Your task to perform on an android device: What's the weather today? Image 0: 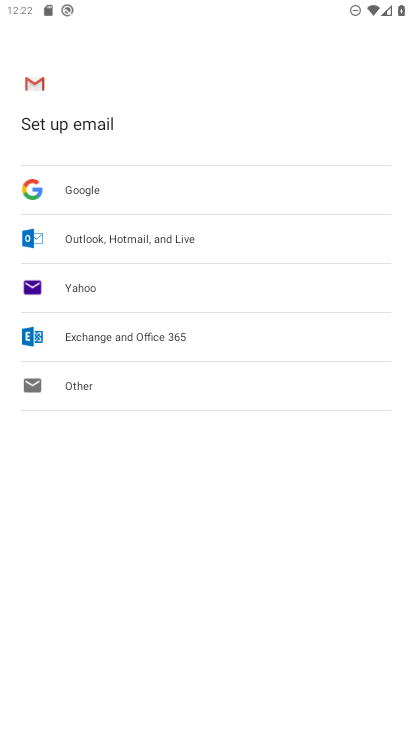
Step 0: press home button
Your task to perform on an android device: What's the weather today? Image 1: 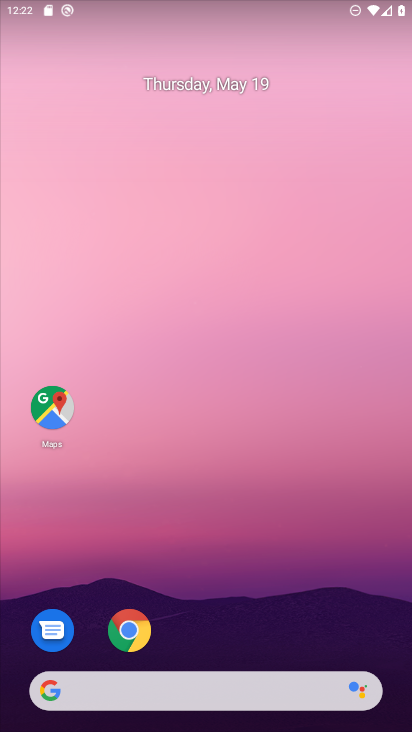
Step 1: click (117, 626)
Your task to perform on an android device: What's the weather today? Image 2: 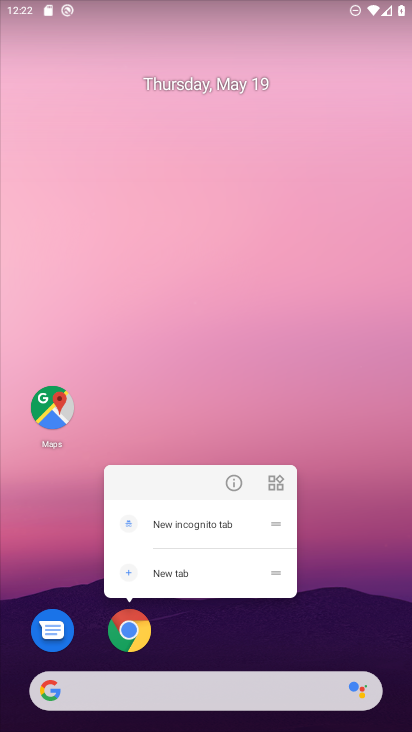
Step 2: click (129, 634)
Your task to perform on an android device: What's the weather today? Image 3: 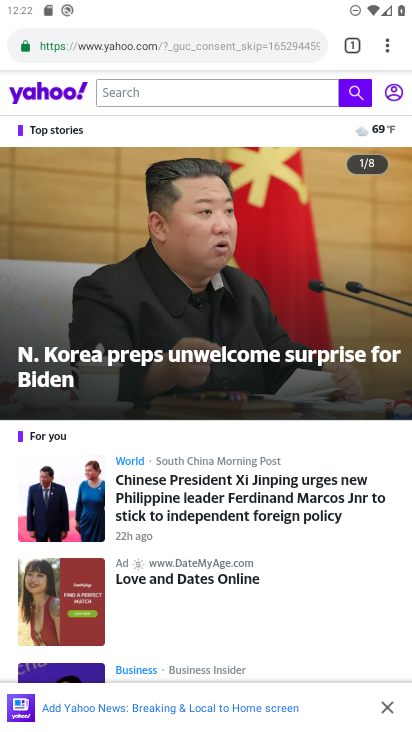
Step 3: click (81, 56)
Your task to perform on an android device: What's the weather today? Image 4: 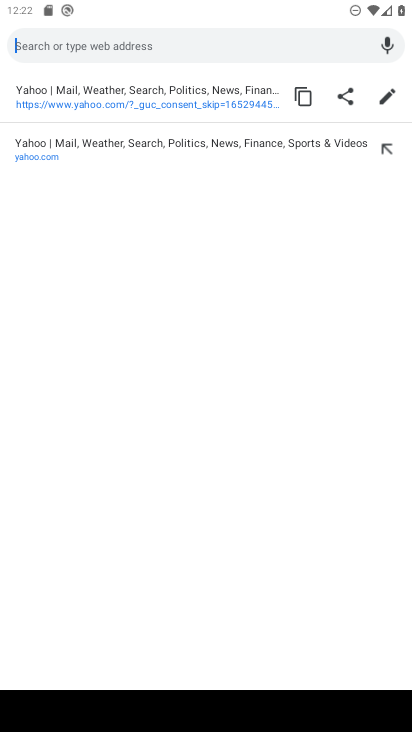
Step 4: type "What's the weather today?"
Your task to perform on an android device: What's the weather today? Image 5: 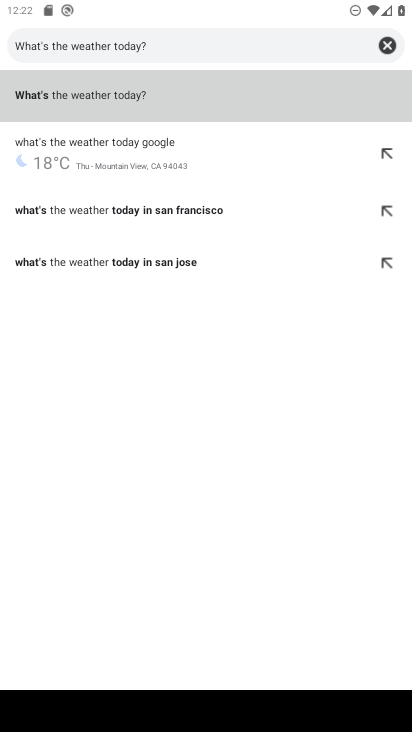
Step 5: click (215, 99)
Your task to perform on an android device: What's the weather today? Image 6: 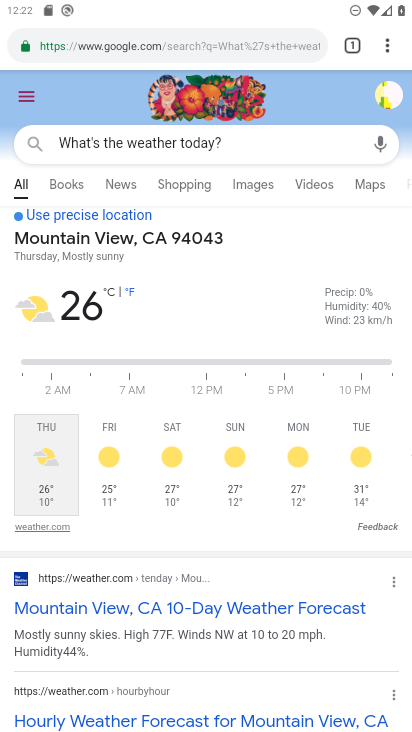
Step 6: task complete